Your task to perform on an android device: check the backup settings in the google photos Image 0: 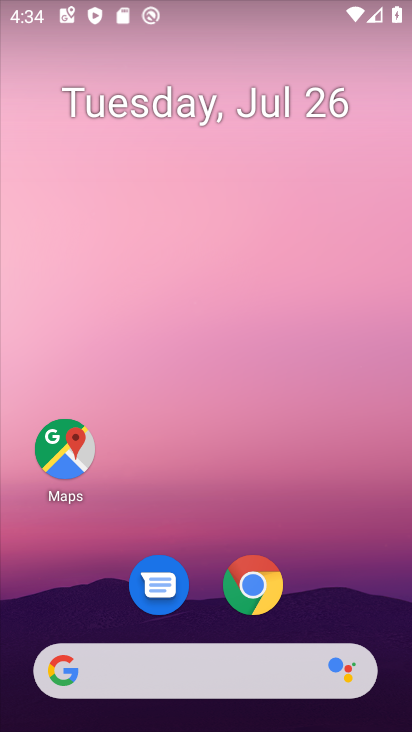
Step 0: drag from (343, 613) to (342, 24)
Your task to perform on an android device: check the backup settings in the google photos Image 1: 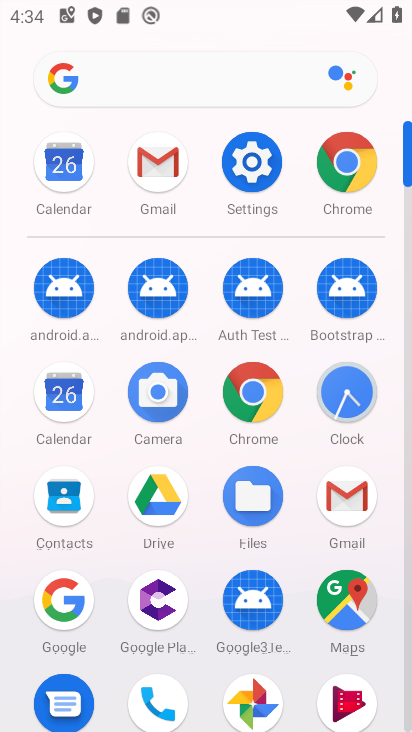
Step 1: drag from (219, 375) to (236, 148)
Your task to perform on an android device: check the backup settings in the google photos Image 2: 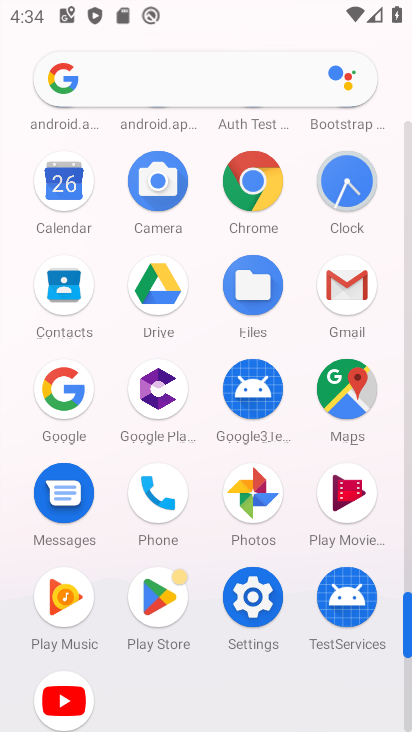
Step 2: click (263, 491)
Your task to perform on an android device: check the backup settings in the google photos Image 3: 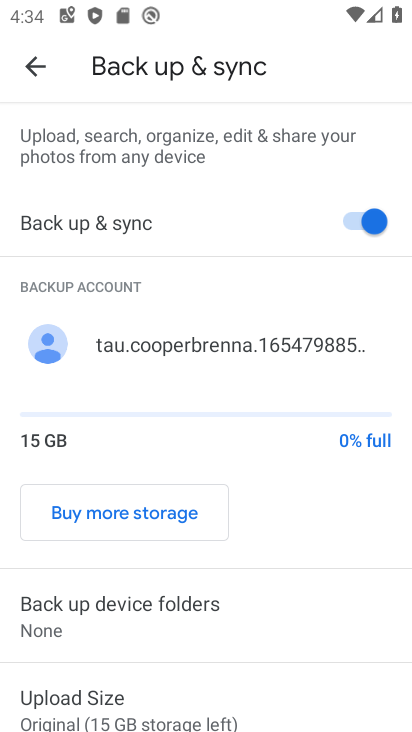
Step 3: task complete